Your task to perform on an android device: turn pop-ups on in chrome Image 0: 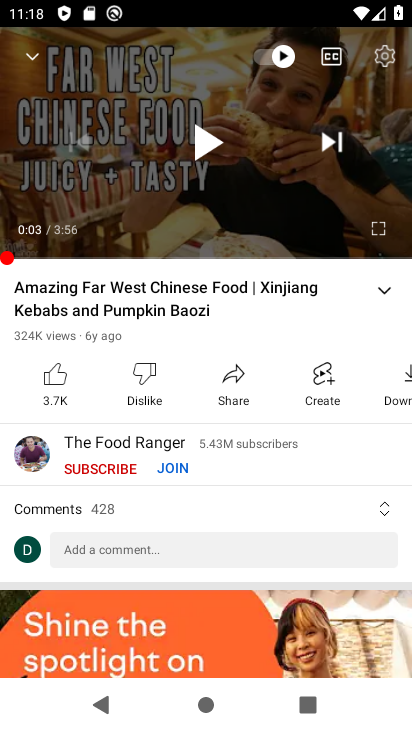
Step 0: press home button
Your task to perform on an android device: turn pop-ups on in chrome Image 1: 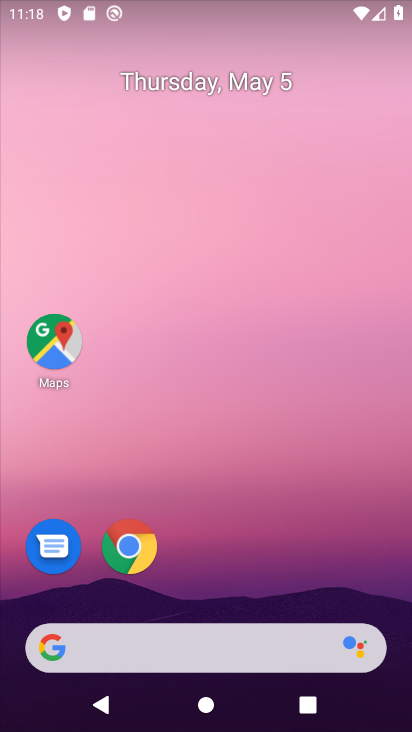
Step 1: click (133, 554)
Your task to perform on an android device: turn pop-ups on in chrome Image 2: 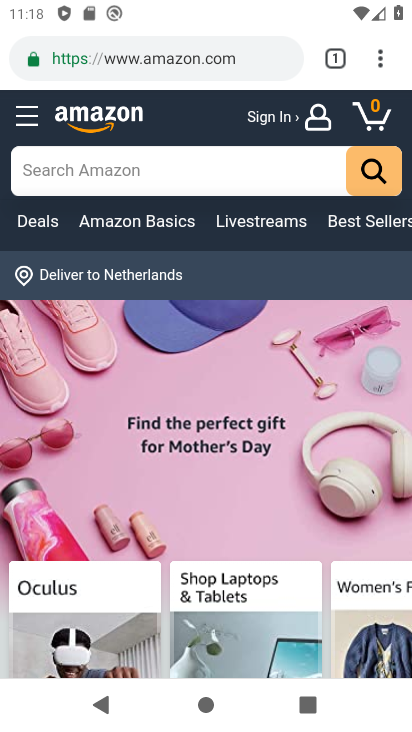
Step 2: click (372, 60)
Your task to perform on an android device: turn pop-ups on in chrome Image 3: 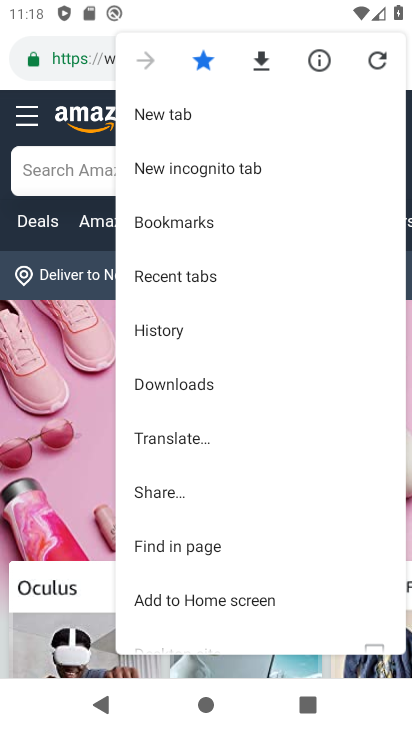
Step 3: drag from (276, 541) to (313, 115)
Your task to perform on an android device: turn pop-ups on in chrome Image 4: 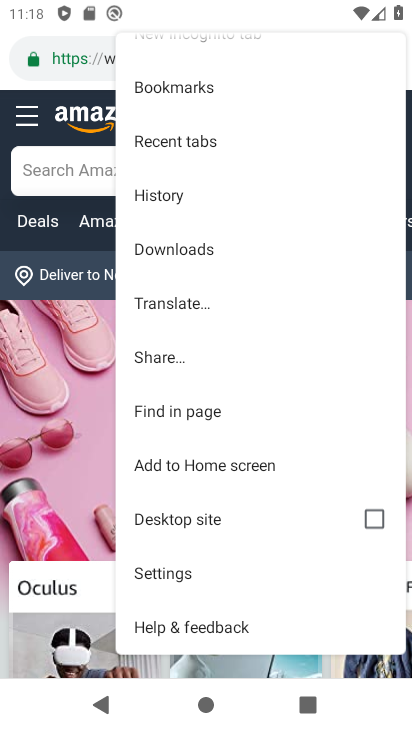
Step 4: click (158, 581)
Your task to perform on an android device: turn pop-ups on in chrome Image 5: 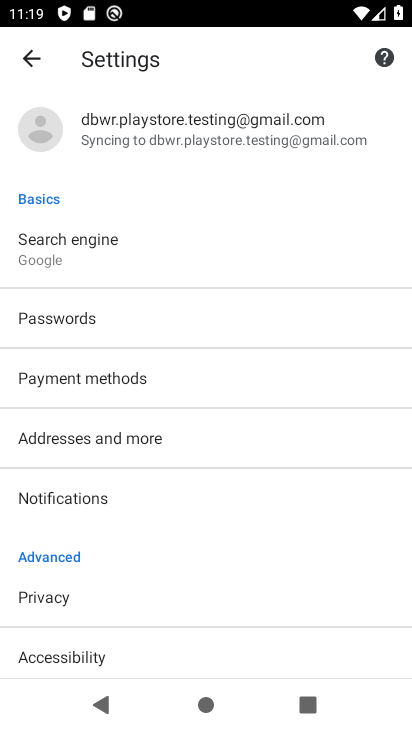
Step 5: click (26, 592)
Your task to perform on an android device: turn pop-ups on in chrome Image 6: 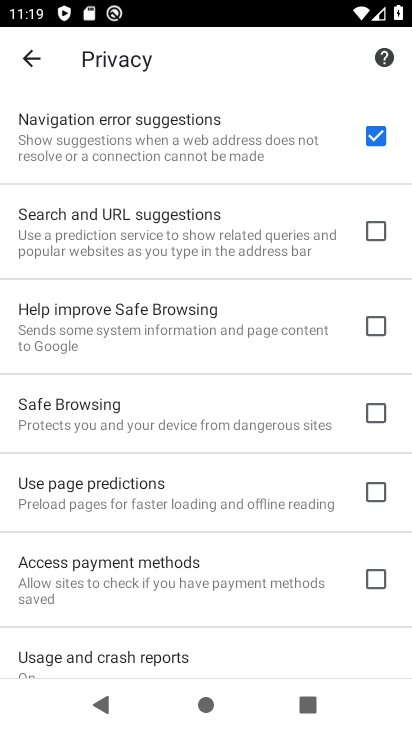
Step 6: click (37, 48)
Your task to perform on an android device: turn pop-ups on in chrome Image 7: 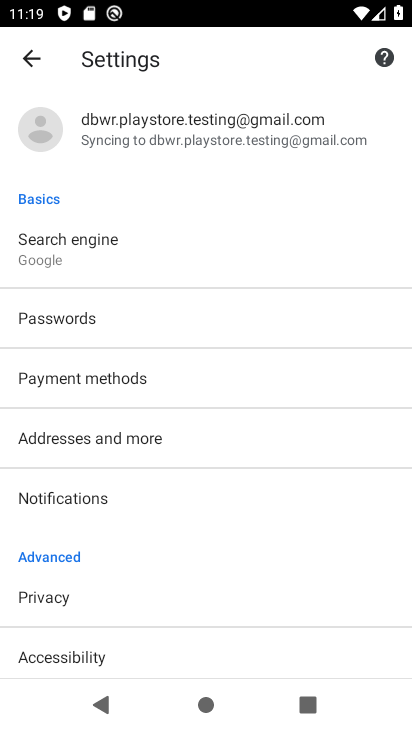
Step 7: drag from (103, 620) to (117, 232)
Your task to perform on an android device: turn pop-ups on in chrome Image 8: 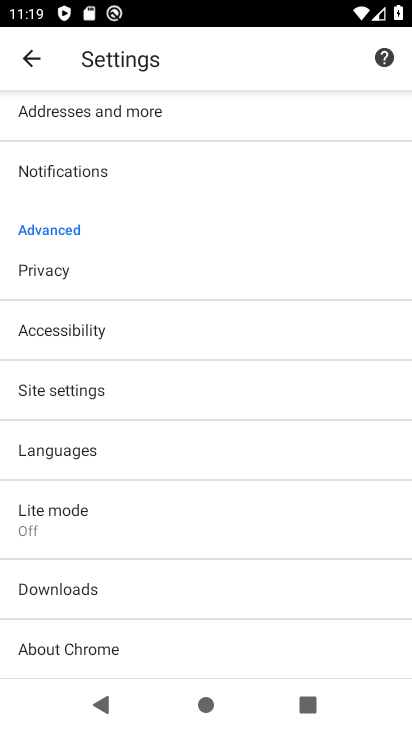
Step 8: click (84, 385)
Your task to perform on an android device: turn pop-ups on in chrome Image 9: 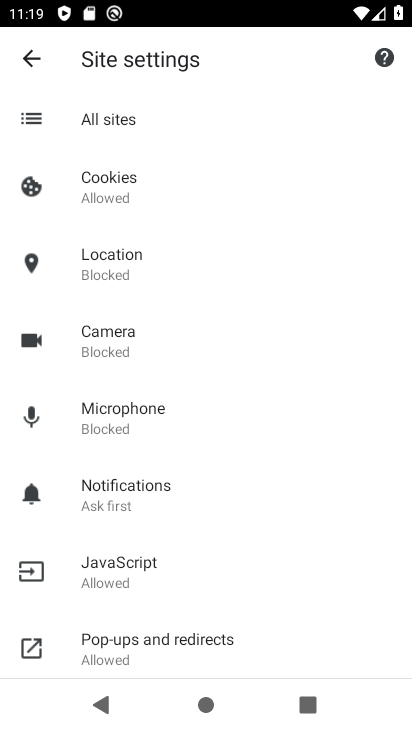
Step 9: click (117, 658)
Your task to perform on an android device: turn pop-ups on in chrome Image 10: 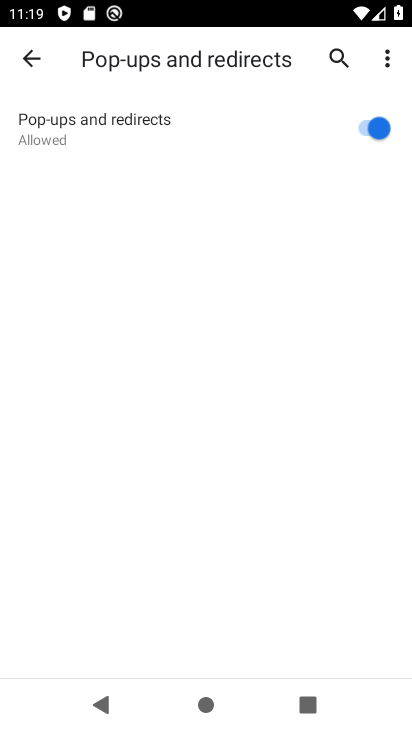
Step 10: task complete